Your task to perform on an android device: turn on sleep mode Image 0: 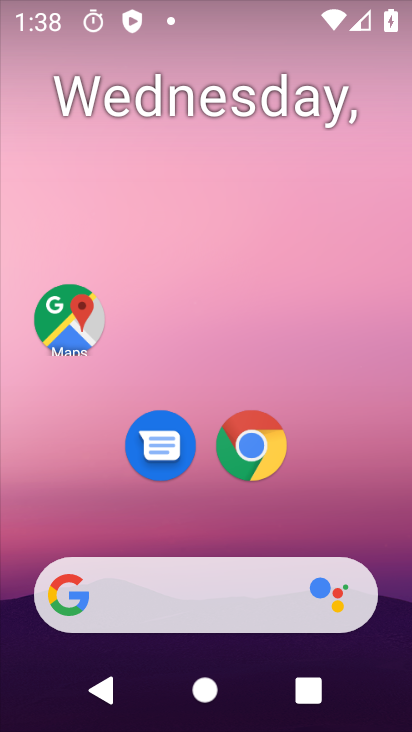
Step 0: press home button
Your task to perform on an android device: turn on sleep mode Image 1: 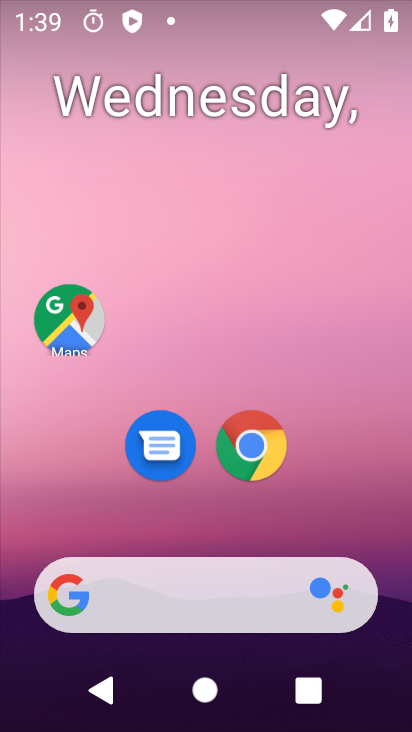
Step 1: drag from (344, 485) to (340, 63)
Your task to perform on an android device: turn on sleep mode Image 2: 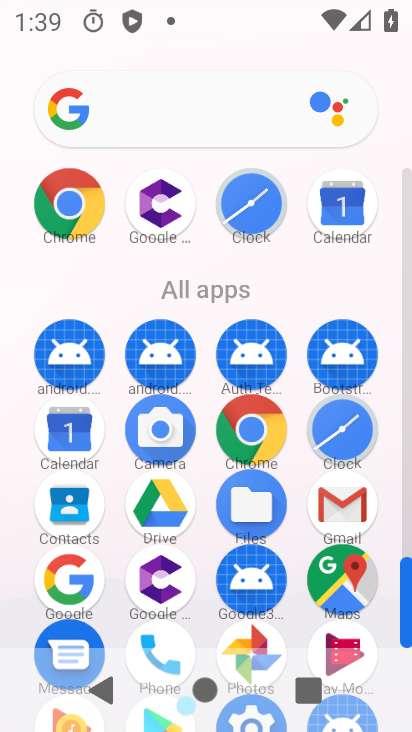
Step 2: drag from (410, 600) to (397, 705)
Your task to perform on an android device: turn on sleep mode Image 3: 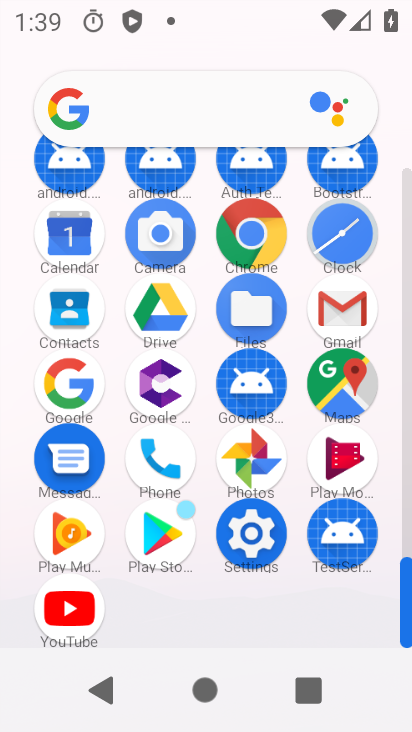
Step 3: click (245, 544)
Your task to perform on an android device: turn on sleep mode Image 4: 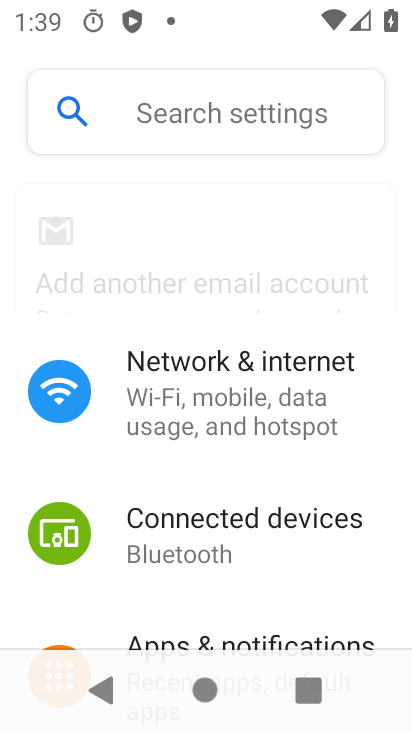
Step 4: drag from (244, 538) to (341, 0)
Your task to perform on an android device: turn on sleep mode Image 5: 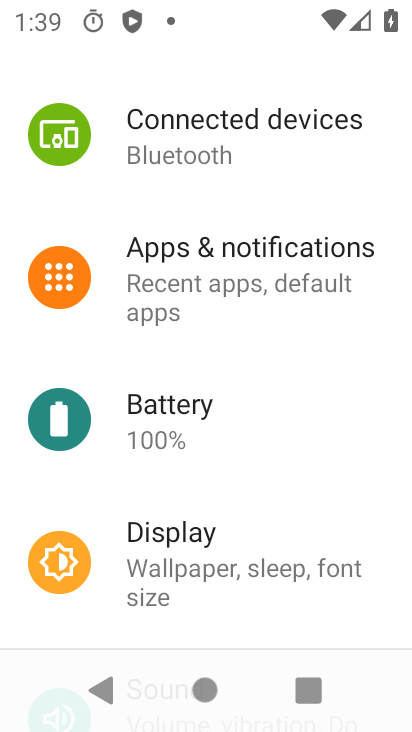
Step 5: click (287, 556)
Your task to perform on an android device: turn on sleep mode Image 6: 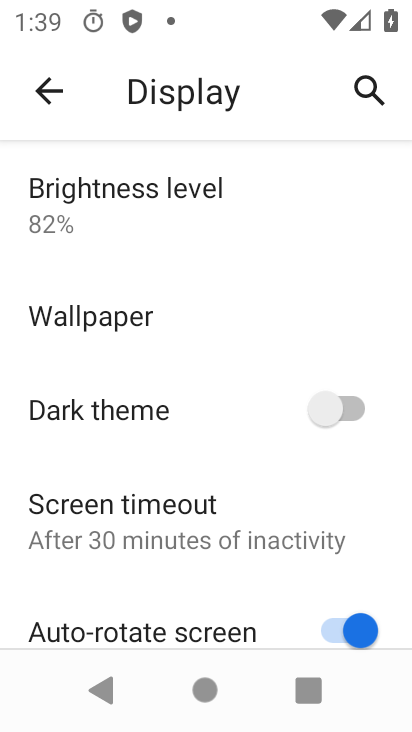
Step 6: task complete